Your task to perform on an android device: Search for a new lawnmower on Lowes.com Image 0: 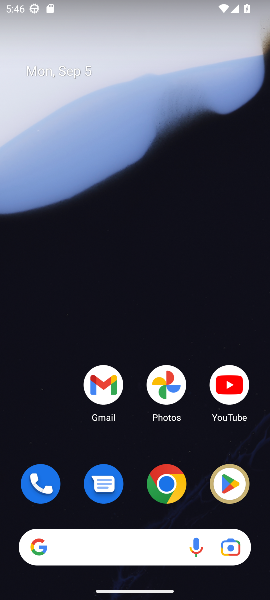
Step 0: click (170, 483)
Your task to perform on an android device: Search for a new lawnmower on Lowes.com Image 1: 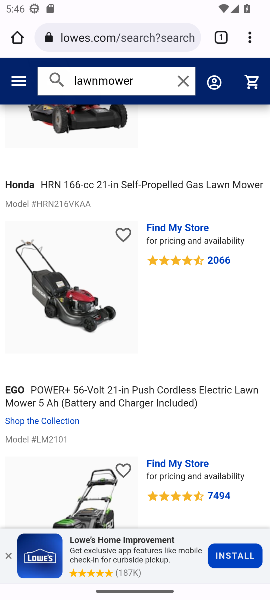
Step 1: click (168, 33)
Your task to perform on an android device: Search for a new lawnmower on Lowes.com Image 2: 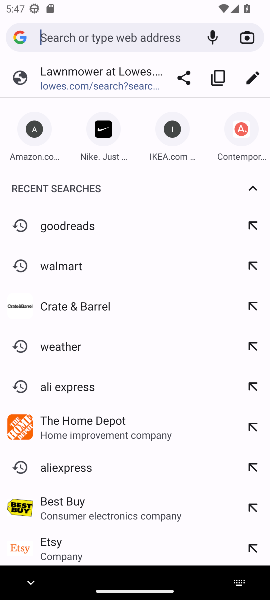
Step 2: click (100, 80)
Your task to perform on an android device: Search for a new lawnmower on Lowes.com Image 3: 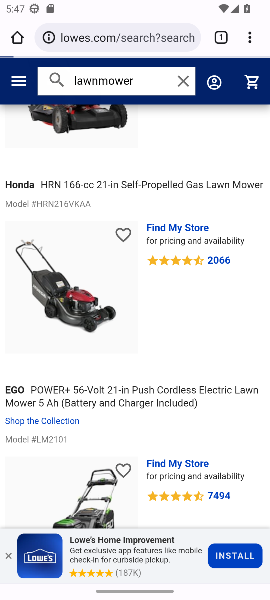
Step 3: task complete